Your task to perform on an android device: Open Google Chrome and open the bookmarks view Image 0: 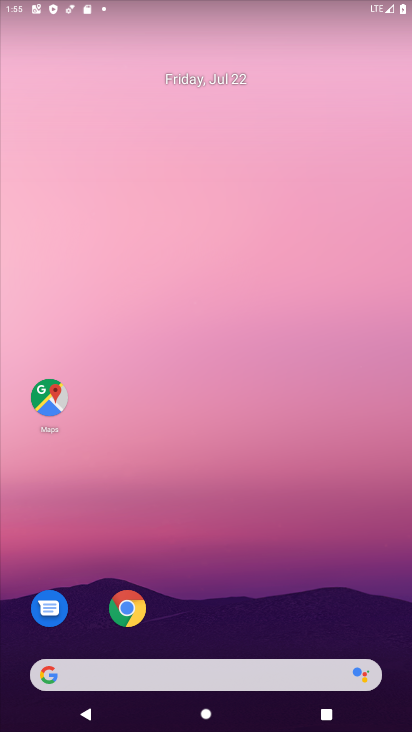
Step 0: drag from (381, 714) to (338, 175)
Your task to perform on an android device: Open Google Chrome and open the bookmarks view Image 1: 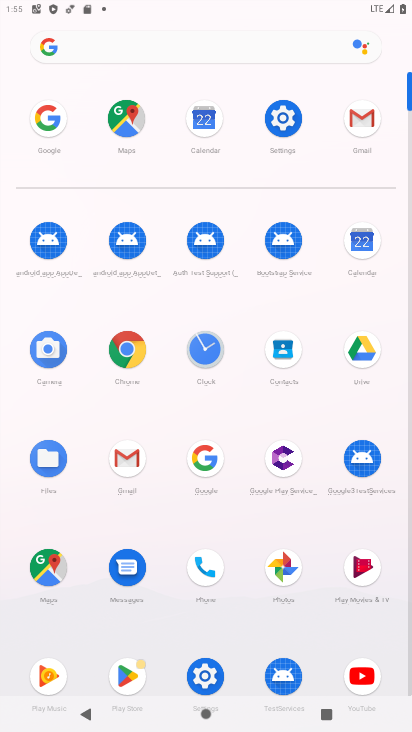
Step 1: click (124, 341)
Your task to perform on an android device: Open Google Chrome and open the bookmarks view Image 2: 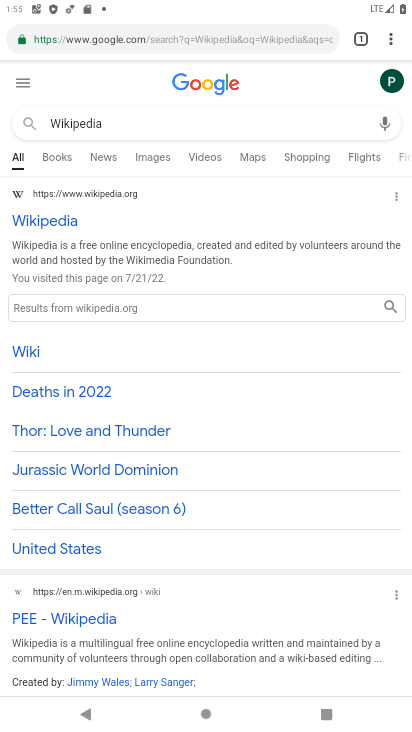
Step 2: click (391, 38)
Your task to perform on an android device: Open Google Chrome and open the bookmarks view Image 3: 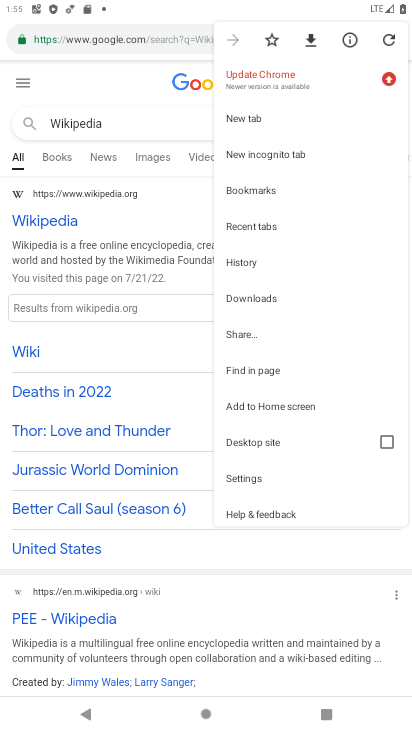
Step 3: click (258, 198)
Your task to perform on an android device: Open Google Chrome and open the bookmarks view Image 4: 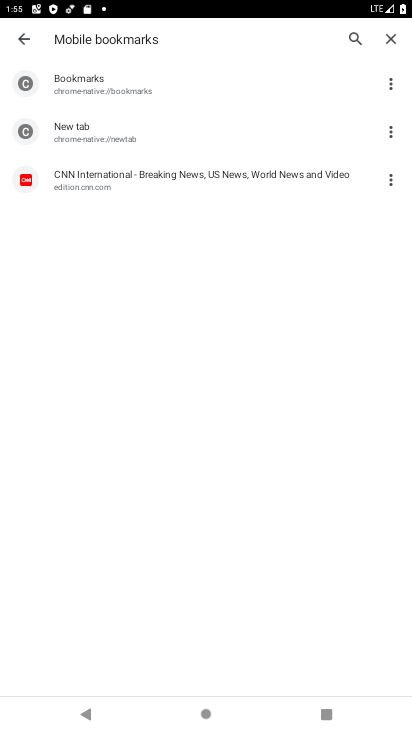
Step 4: task complete